Your task to perform on an android device: Turn off the flashlight Image 0: 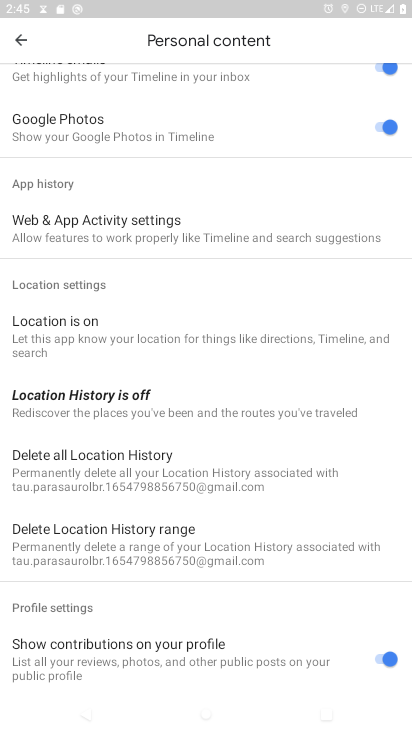
Step 0: press home button
Your task to perform on an android device: Turn off the flashlight Image 1: 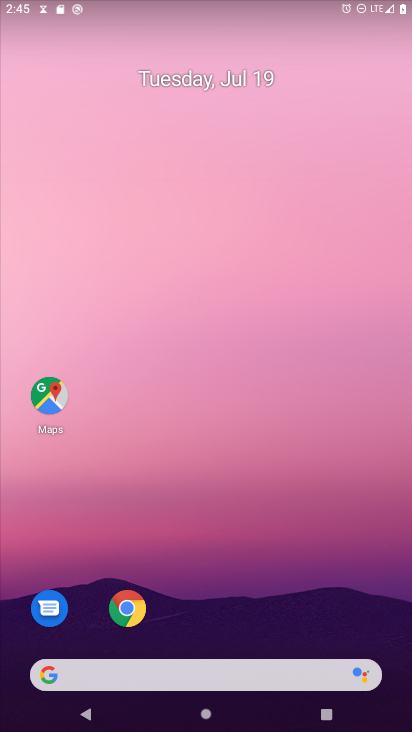
Step 1: task complete